Your task to perform on an android device: turn pop-ups on in chrome Image 0: 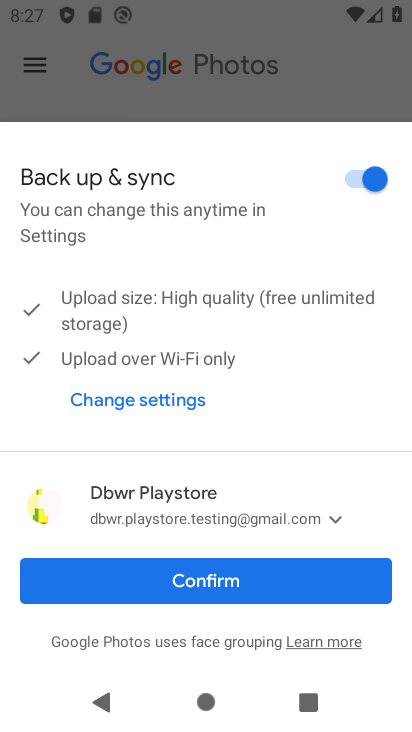
Step 0: press home button
Your task to perform on an android device: turn pop-ups on in chrome Image 1: 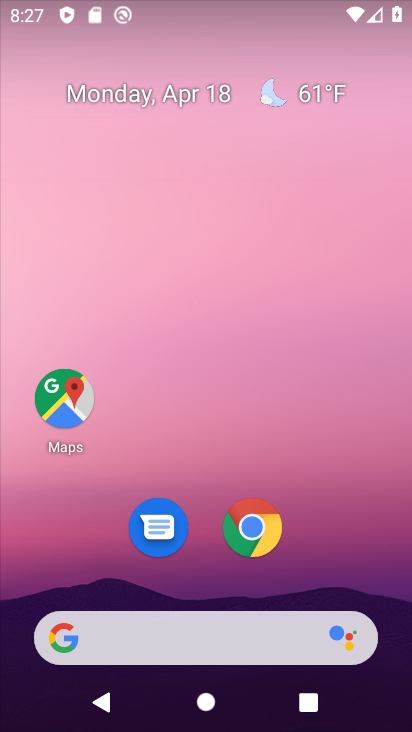
Step 1: click (263, 532)
Your task to perform on an android device: turn pop-ups on in chrome Image 2: 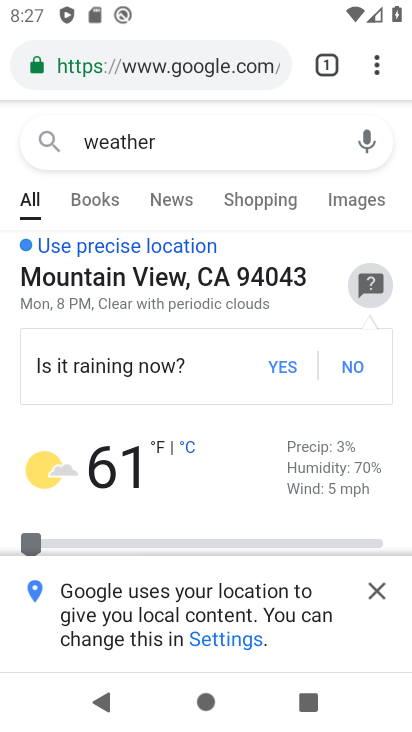
Step 2: click (382, 77)
Your task to perform on an android device: turn pop-ups on in chrome Image 3: 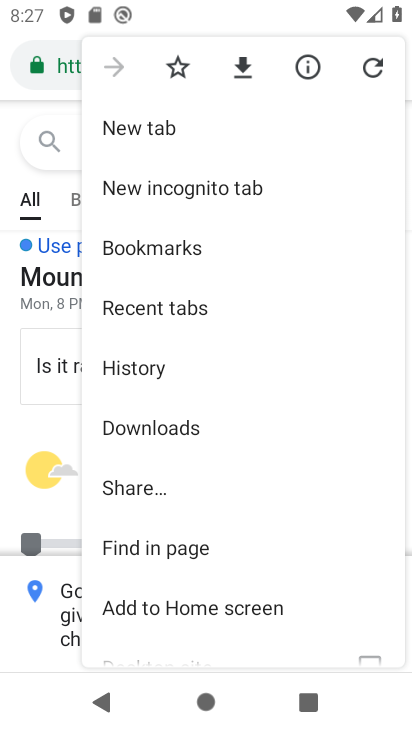
Step 3: drag from (108, 651) to (204, 261)
Your task to perform on an android device: turn pop-ups on in chrome Image 4: 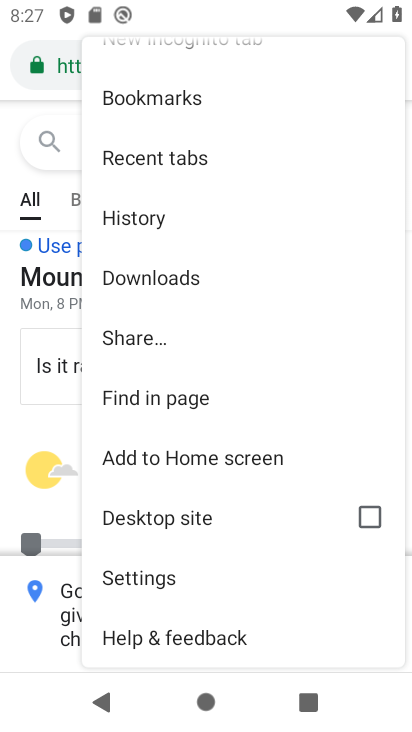
Step 4: click (146, 569)
Your task to perform on an android device: turn pop-ups on in chrome Image 5: 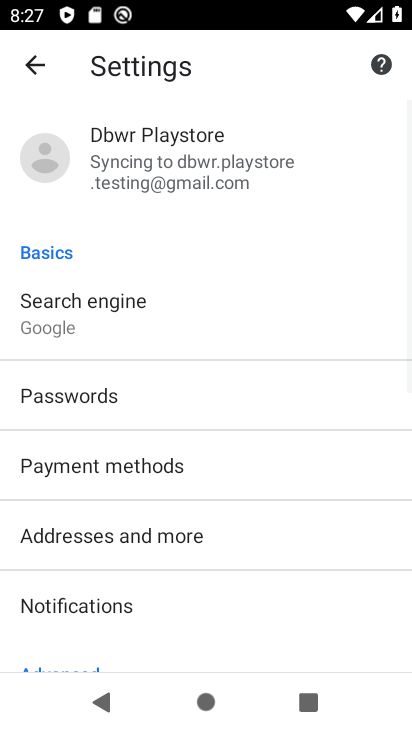
Step 5: drag from (146, 569) to (197, 141)
Your task to perform on an android device: turn pop-ups on in chrome Image 6: 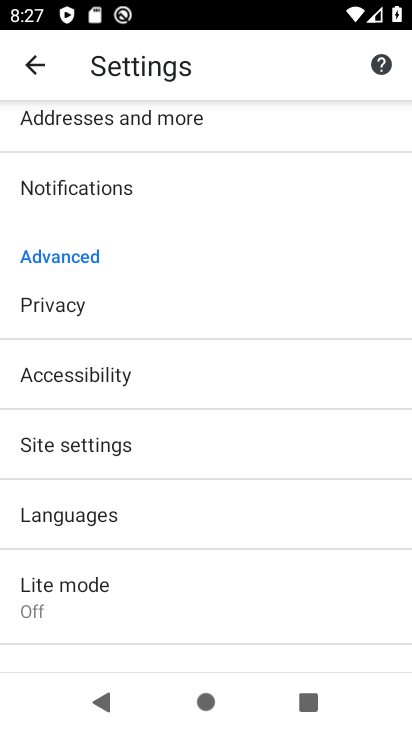
Step 6: click (303, 426)
Your task to perform on an android device: turn pop-ups on in chrome Image 7: 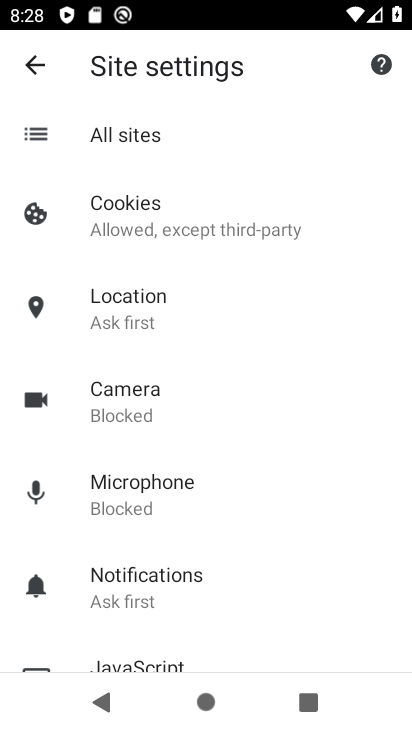
Step 7: drag from (146, 655) to (150, 606)
Your task to perform on an android device: turn pop-ups on in chrome Image 8: 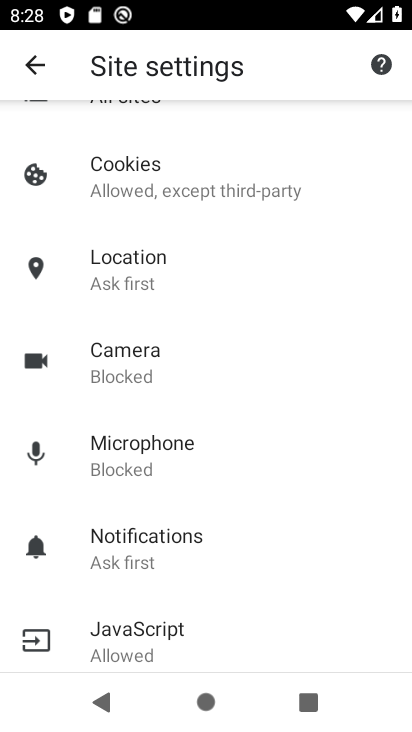
Step 8: drag from (150, 607) to (225, 189)
Your task to perform on an android device: turn pop-ups on in chrome Image 9: 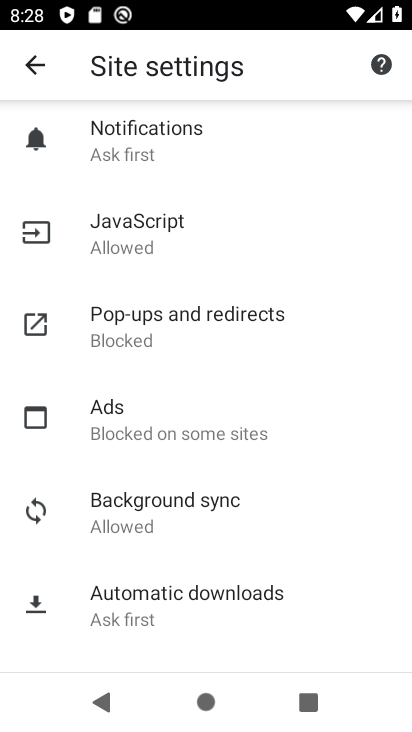
Step 9: click (212, 322)
Your task to perform on an android device: turn pop-ups on in chrome Image 10: 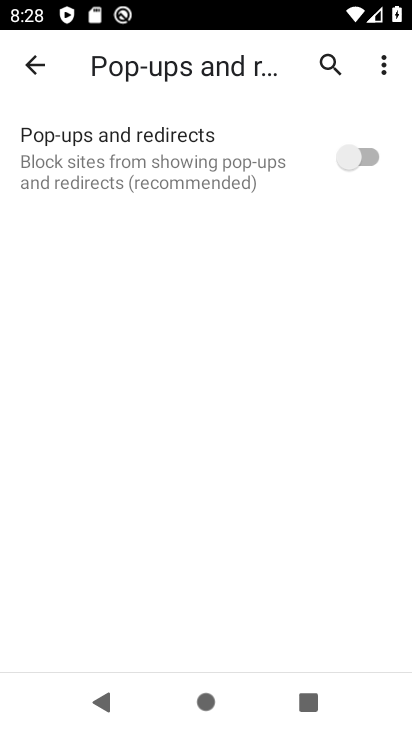
Step 10: click (358, 150)
Your task to perform on an android device: turn pop-ups on in chrome Image 11: 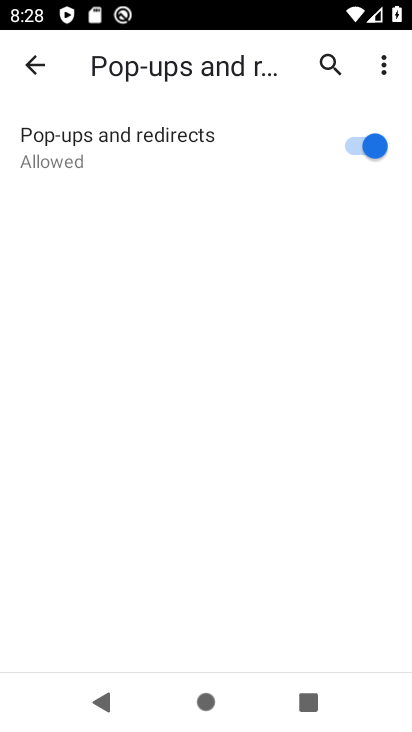
Step 11: task complete